Your task to perform on an android device: Open Google Image 0: 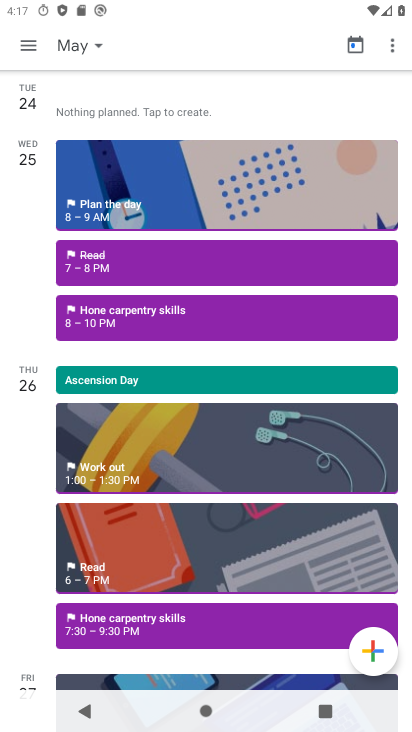
Step 0: press home button
Your task to perform on an android device: Open Google Image 1: 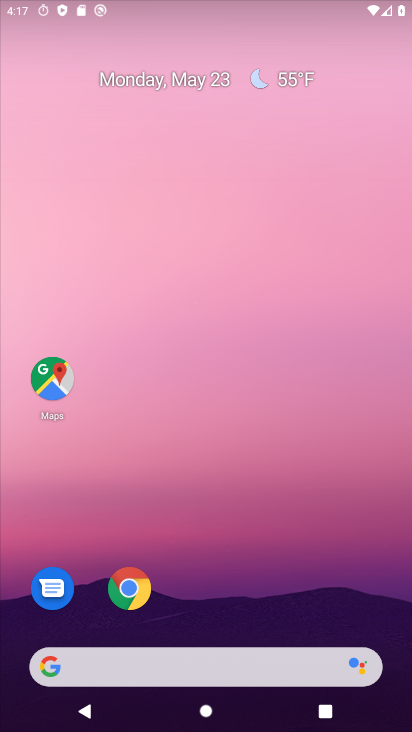
Step 1: drag from (226, 485) to (233, 132)
Your task to perform on an android device: Open Google Image 2: 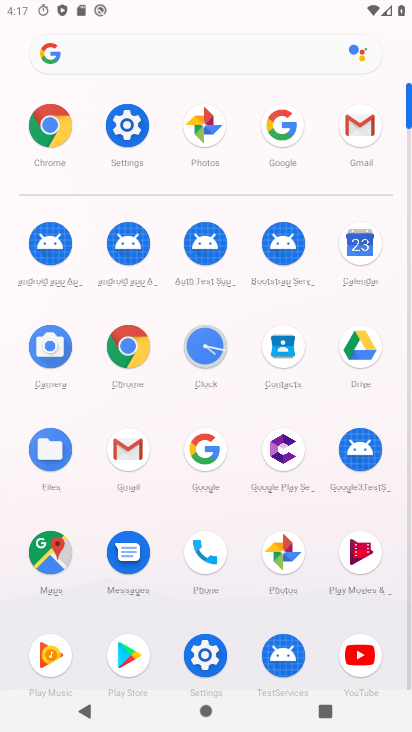
Step 2: click (272, 117)
Your task to perform on an android device: Open Google Image 3: 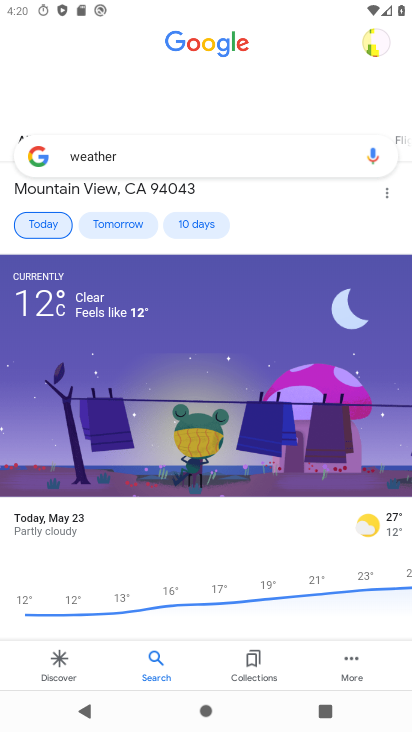
Step 3: task complete